Your task to perform on an android device: change the clock style Image 0: 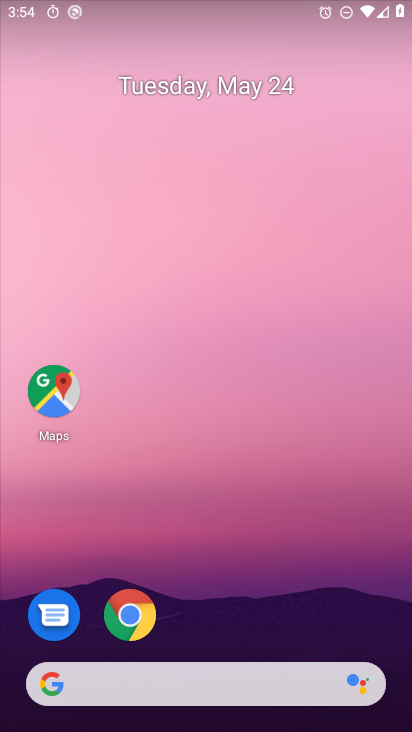
Step 0: drag from (234, 639) to (227, 177)
Your task to perform on an android device: change the clock style Image 1: 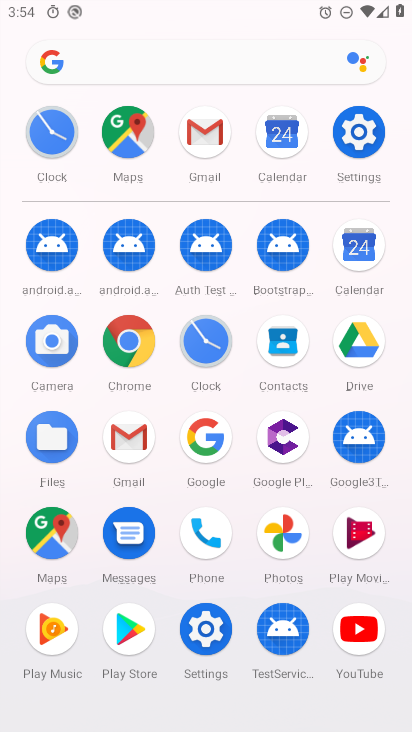
Step 1: click (203, 343)
Your task to perform on an android device: change the clock style Image 2: 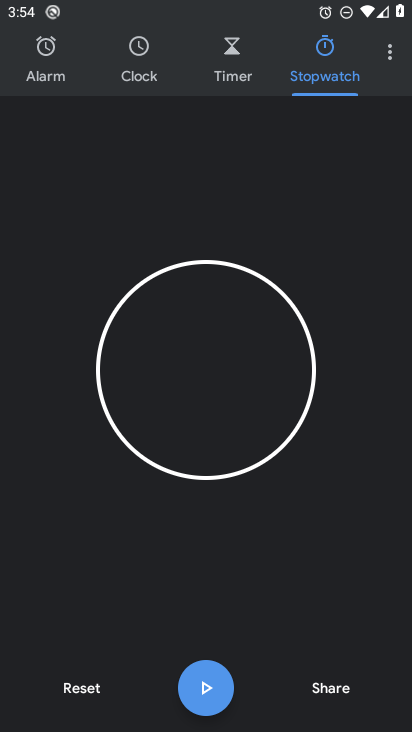
Step 2: click (380, 53)
Your task to perform on an android device: change the clock style Image 3: 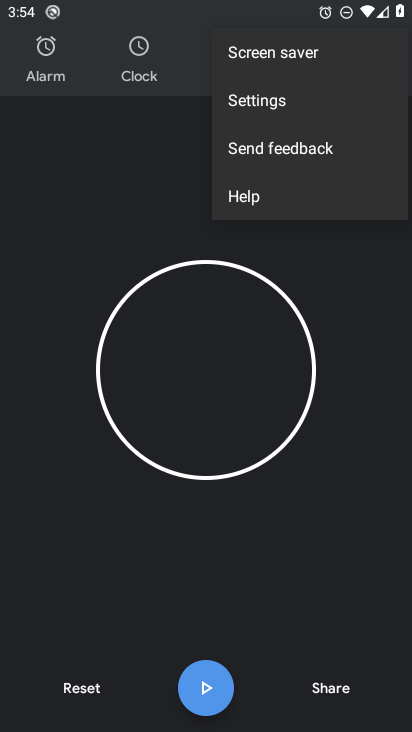
Step 3: click (274, 109)
Your task to perform on an android device: change the clock style Image 4: 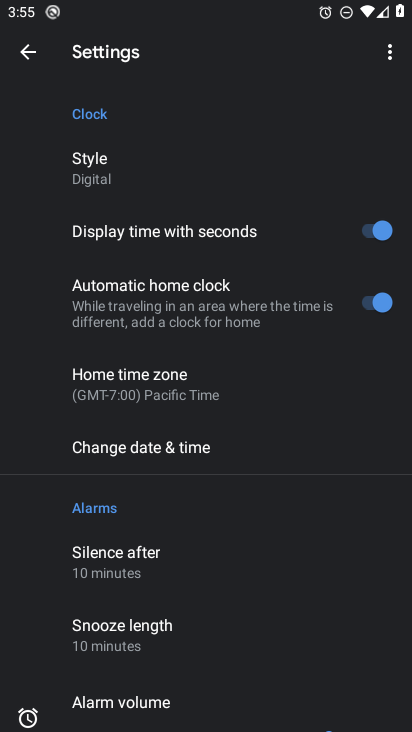
Step 4: drag from (217, 657) to (186, 141)
Your task to perform on an android device: change the clock style Image 5: 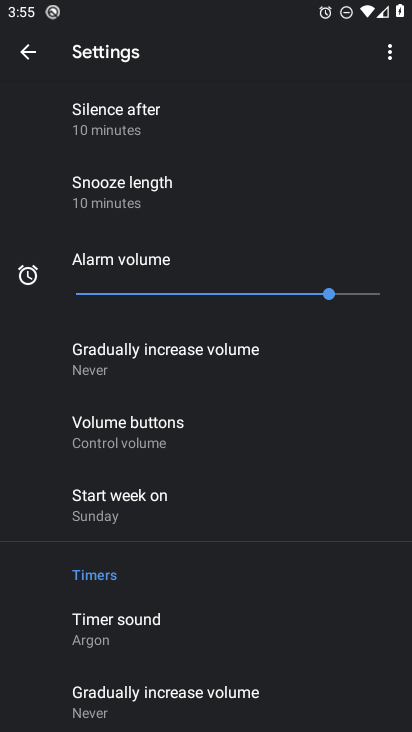
Step 5: drag from (174, 679) to (192, 290)
Your task to perform on an android device: change the clock style Image 6: 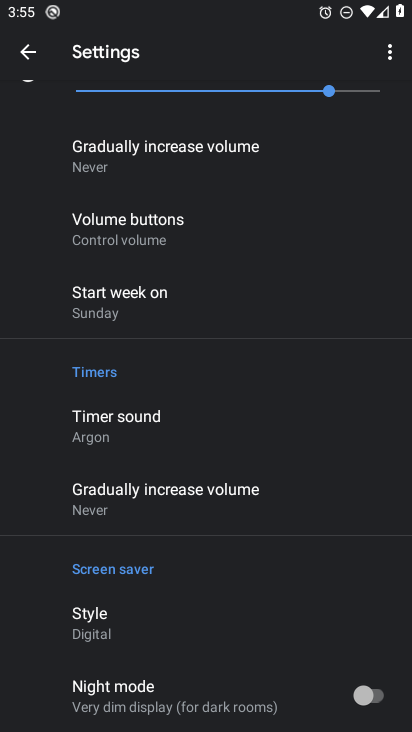
Step 6: drag from (200, 703) to (258, 419)
Your task to perform on an android device: change the clock style Image 7: 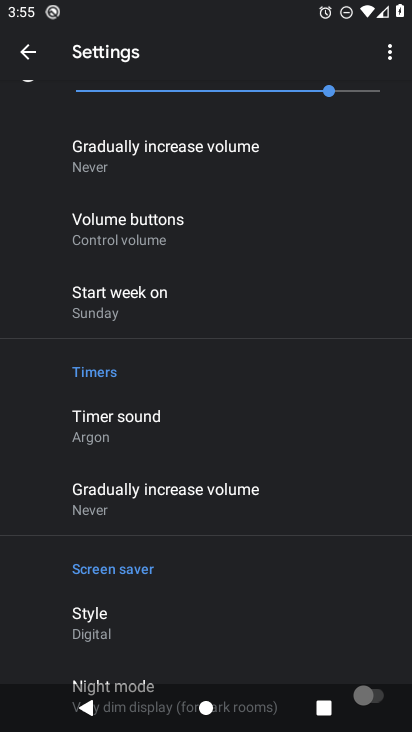
Step 7: drag from (239, 230) to (254, 644)
Your task to perform on an android device: change the clock style Image 8: 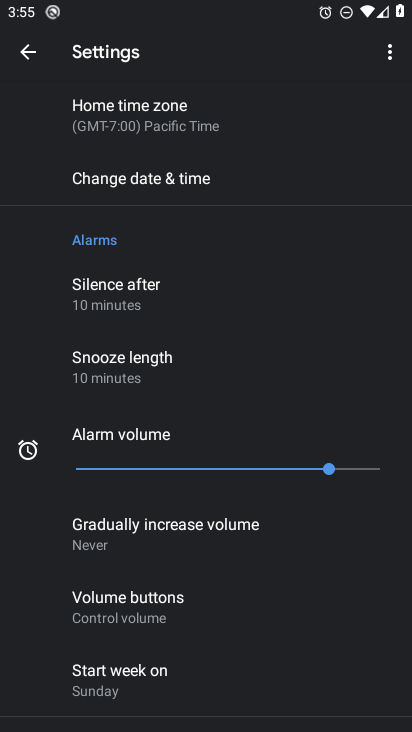
Step 8: drag from (187, 159) to (231, 508)
Your task to perform on an android device: change the clock style Image 9: 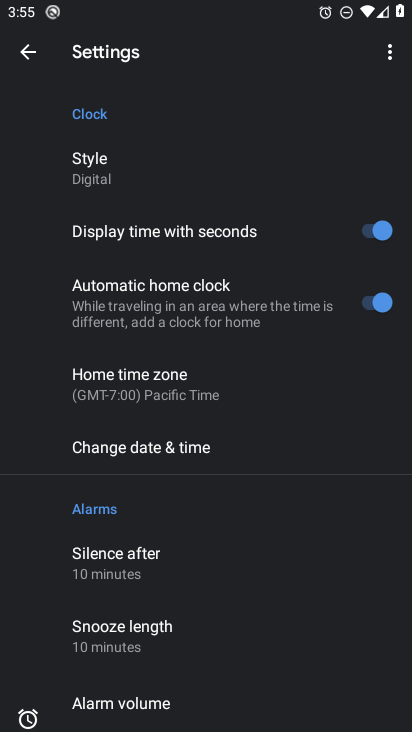
Step 9: click (102, 170)
Your task to perform on an android device: change the clock style Image 10: 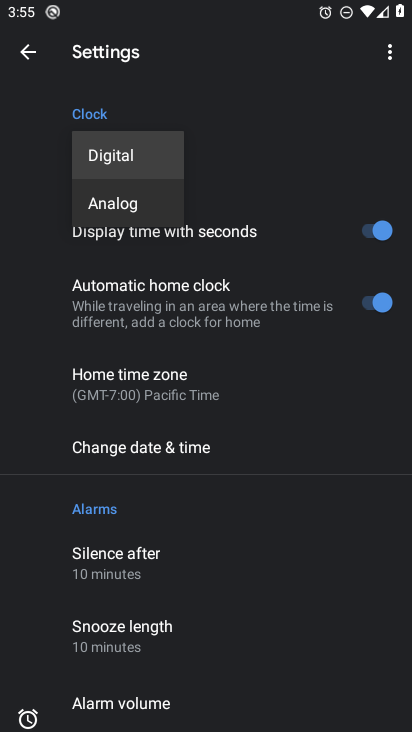
Step 10: click (117, 205)
Your task to perform on an android device: change the clock style Image 11: 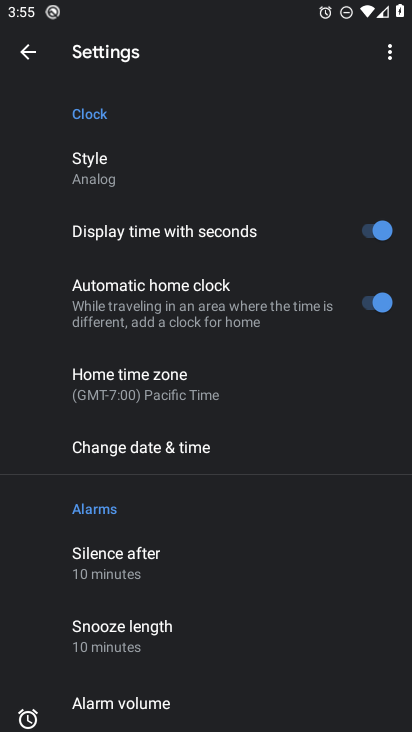
Step 11: task complete